Your task to perform on an android device: Go to CNN.com Image 0: 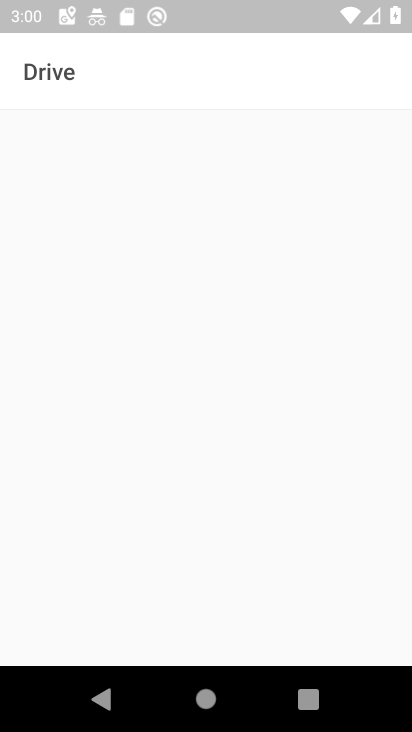
Step 0: press home button
Your task to perform on an android device: Go to CNN.com Image 1: 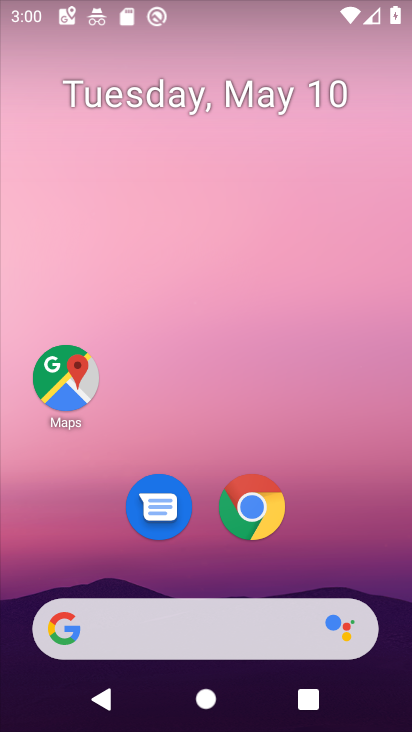
Step 1: click (252, 512)
Your task to perform on an android device: Go to CNN.com Image 2: 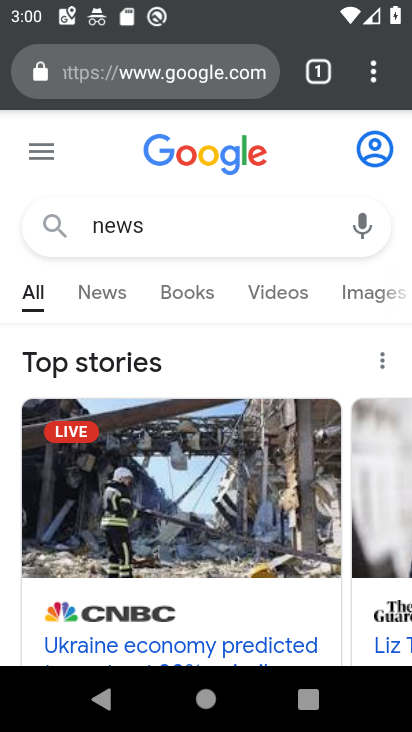
Step 2: click (129, 66)
Your task to perform on an android device: Go to CNN.com Image 3: 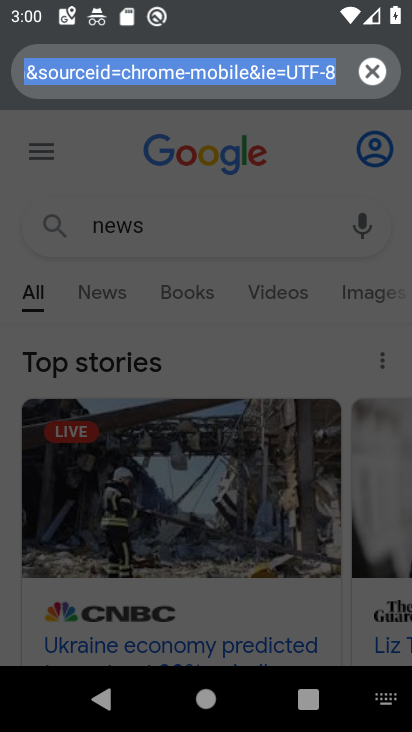
Step 3: type "CNN.com"
Your task to perform on an android device: Go to CNN.com Image 4: 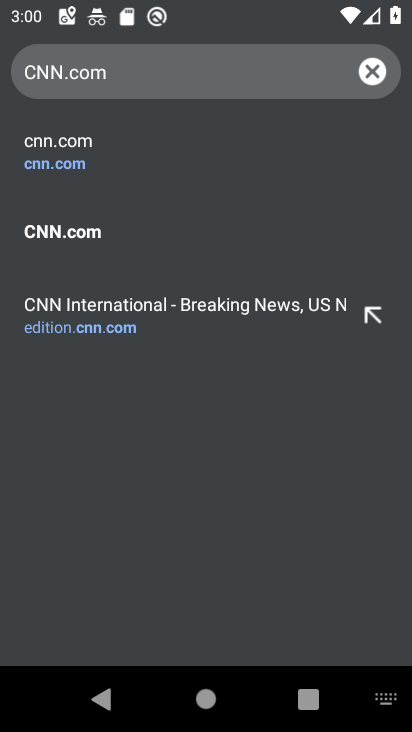
Step 4: click (101, 234)
Your task to perform on an android device: Go to CNN.com Image 5: 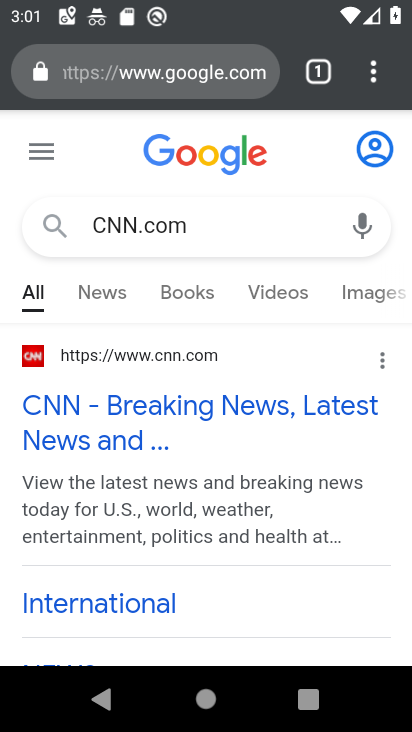
Step 5: task complete